Your task to perform on an android device: Open Reddit.com Image 0: 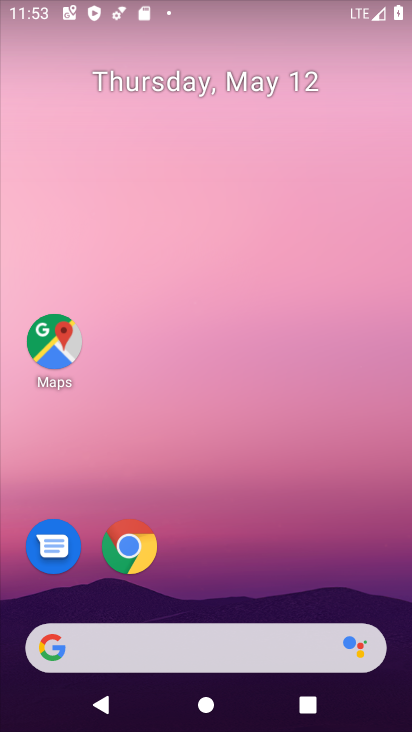
Step 0: click (130, 543)
Your task to perform on an android device: Open Reddit.com Image 1: 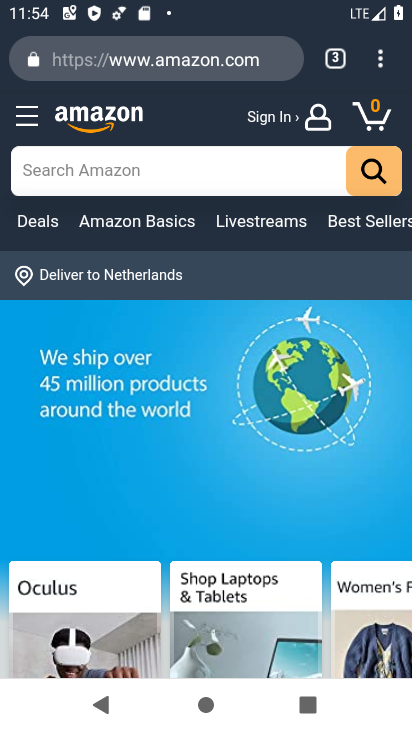
Step 1: click (342, 62)
Your task to perform on an android device: Open Reddit.com Image 2: 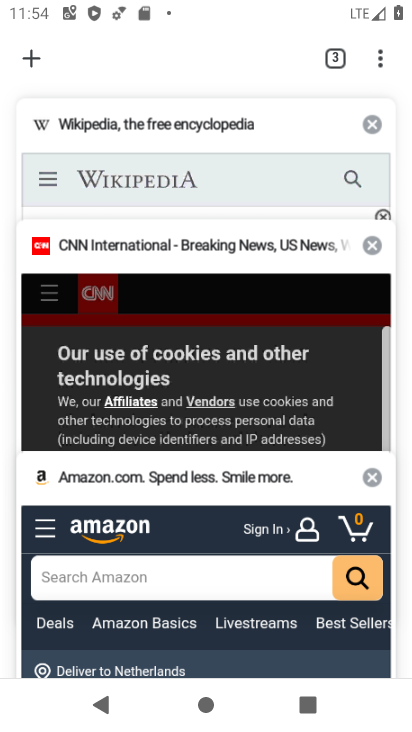
Step 2: click (37, 71)
Your task to perform on an android device: Open Reddit.com Image 3: 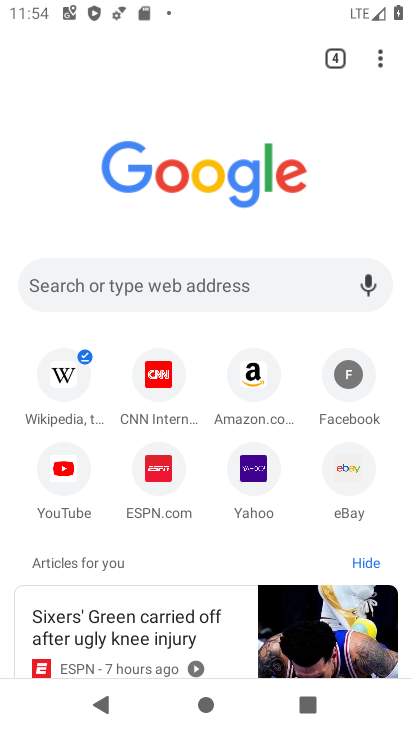
Step 3: click (191, 288)
Your task to perform on an android device: Open Reddit.com Image 4: 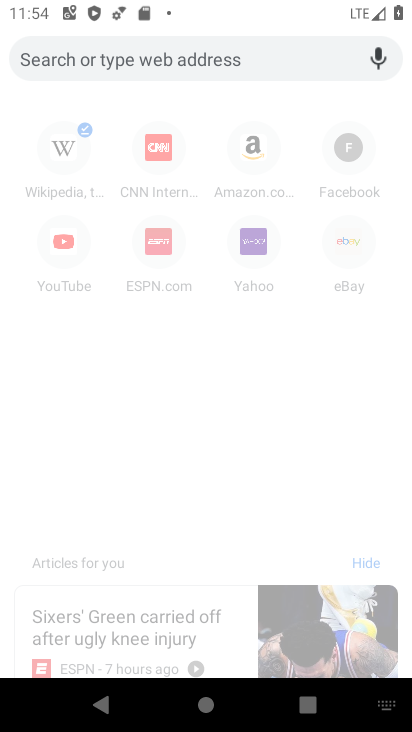
Step 4: type "Reddit.com"
Your task to perform on an android device: Open Reddit.com Image 5: 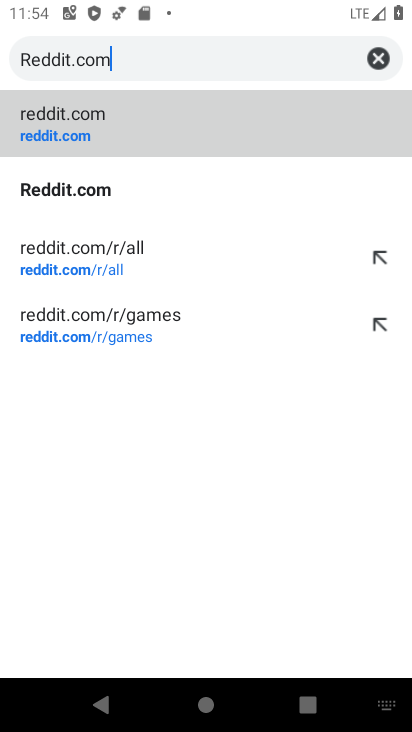
Step 5: click (143, 124)
Your task to perform on an android device: Open Reddit.com Image 6: 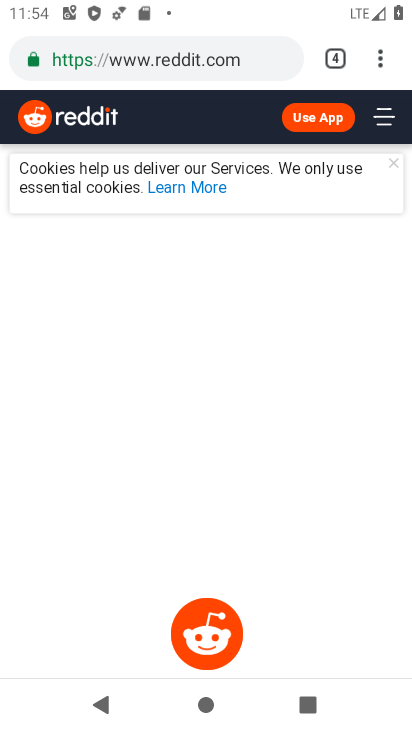
Step 6: task complete